Your task to perform on an android device: allow cookies in the chrome app Image 0: 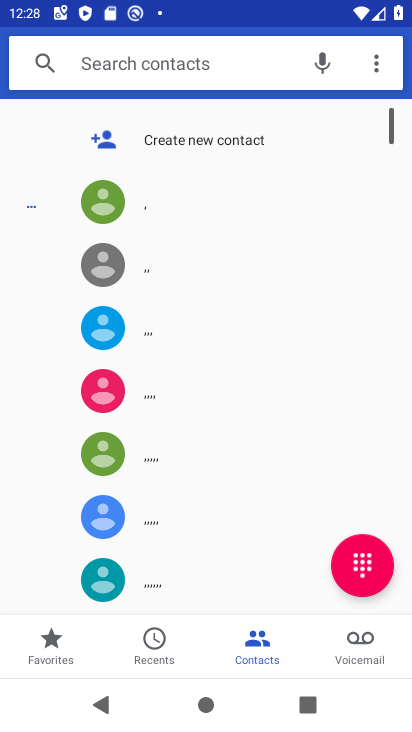
Step 0: press home button
Your task to perform on an android device: allow cookies in the chrome app Image 1: 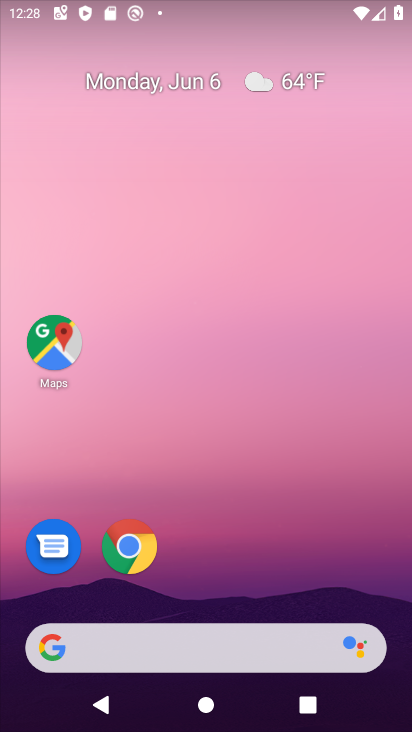
Step 1: drag from (260, 555) to (253, 291)
Your task to perform on an android device: allow cookies in the chrome app Image 2: 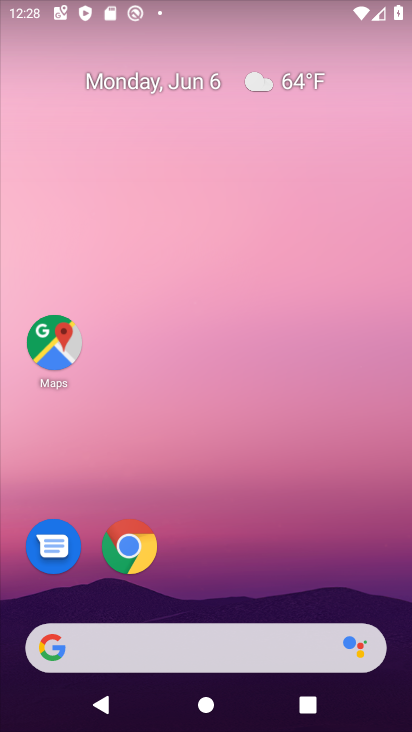
Step 2: click (121, 540)
Your task to perform on an android device: allow cookies in the chrome app Image 3: 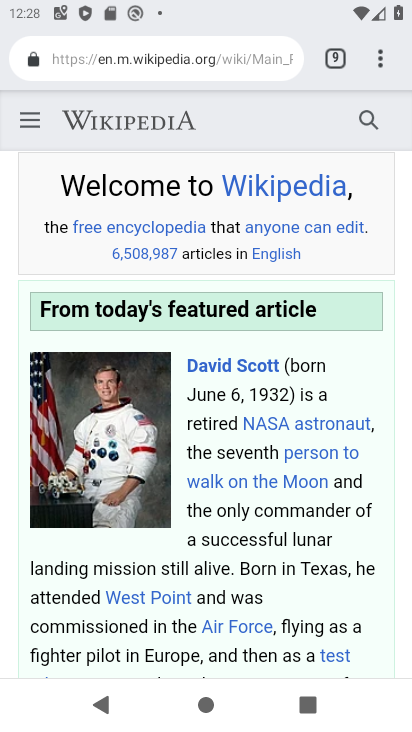
Step 3: click (369, 61)
Your task to perform on an android device: allow cookies in the chrome app Image 4: 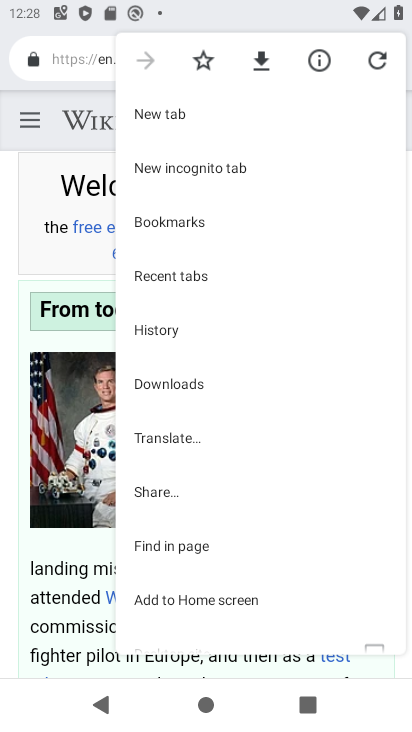
Step 4: drag from (214, 596) to (279, 285)
Your task to perform on an android device: allow cookies in the chrome app Image 5: 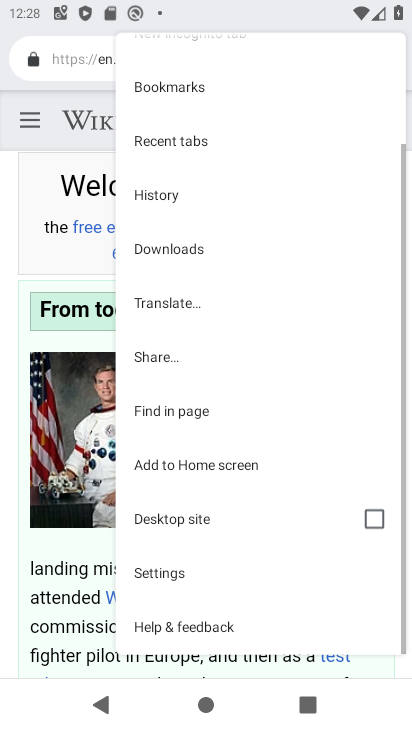
Step 5: click (187, 569)
Your task to perform on an android device: allow cookies in the chrome app Image 6: 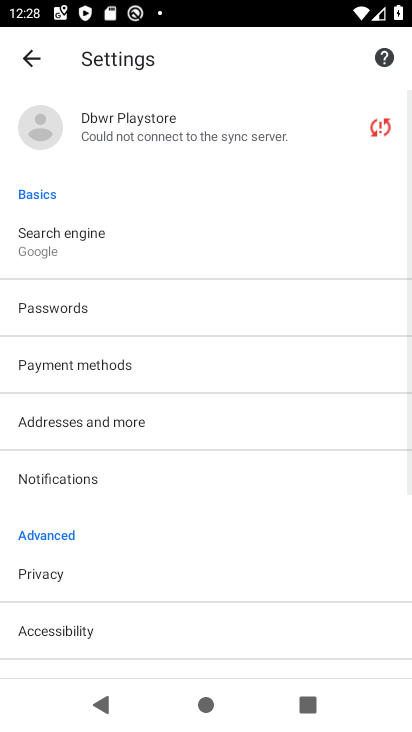
Step 6: drag from (67, 559) to (171, 242)
Your task to perform on an android device: allow cookies in the chrome app Image 7: 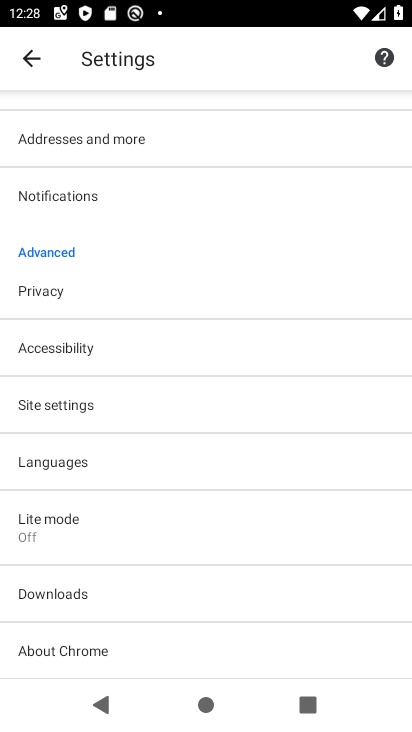
Step 7: click (122, 387)
Your task to perform on an android device: allow cookies in the chrome app Image 8: 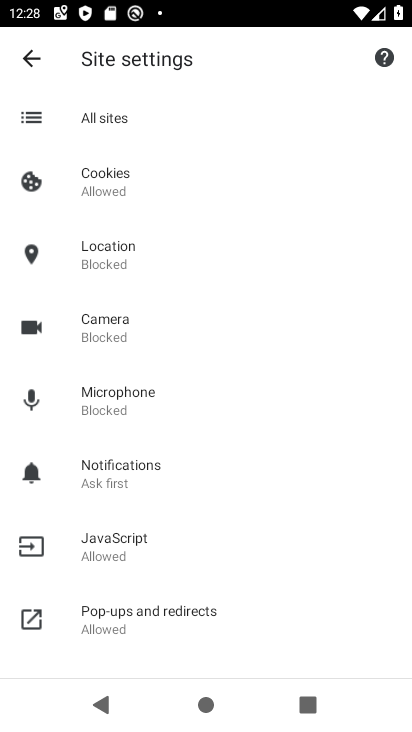
Step 8: click (127, 183)
Your task to perform on an android device: allow cookies in the chrome app Image 9: 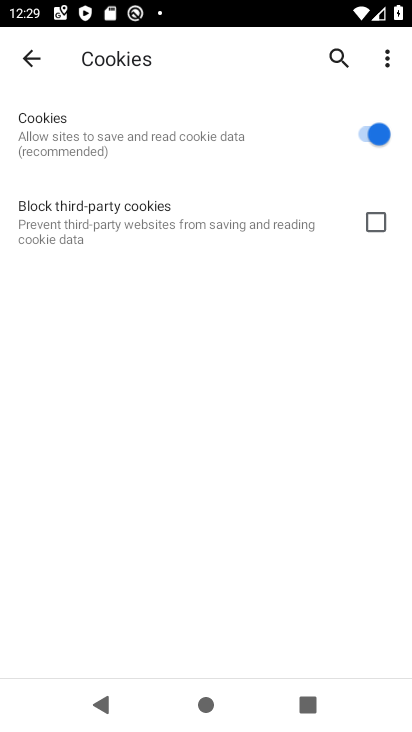
Step 9: task complete